Your task to perform on an android device: Go to notification settings Image 0: 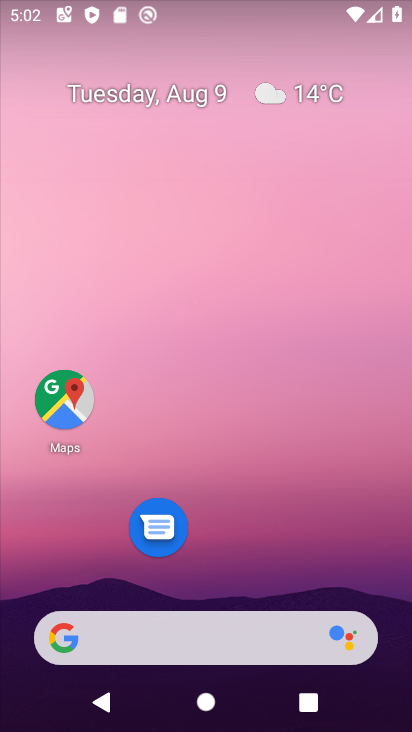
Step 0: drag from (212, 510) to (204, 77)
Your task to perform on an android device: Go to notification settings Image 1: 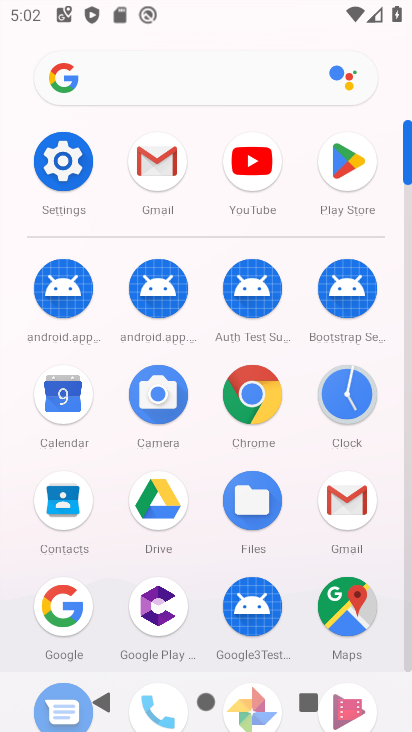
Step 1: click (72, 145)
Your task to perform on an android device: Go to notification settings Image 2: 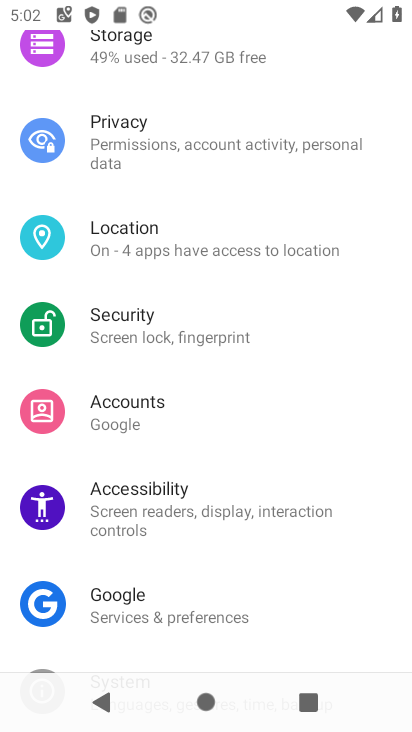
Step 2: drag from (136, 86) to (295, 538)
Your task to perform on an android device: Go to notification settings Image 3: 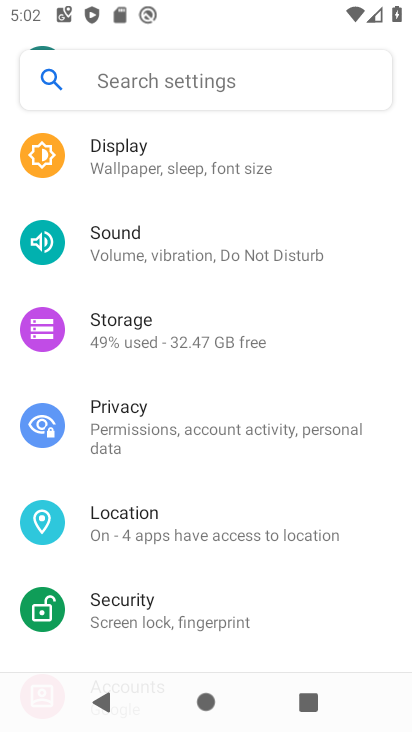
Step 3: drag from (295, 140) to (411, 565)
Your task to perform on an android device: Go to notification settings Image 4: 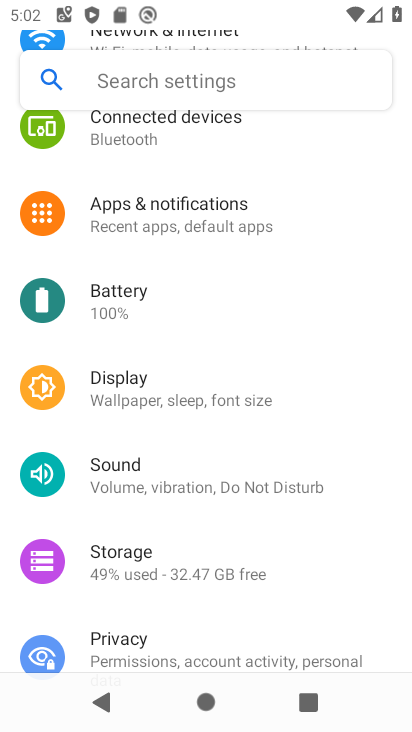
Step 4: click (245, 230)
Your task to perform on an android device: Go to notification settings Image 5: 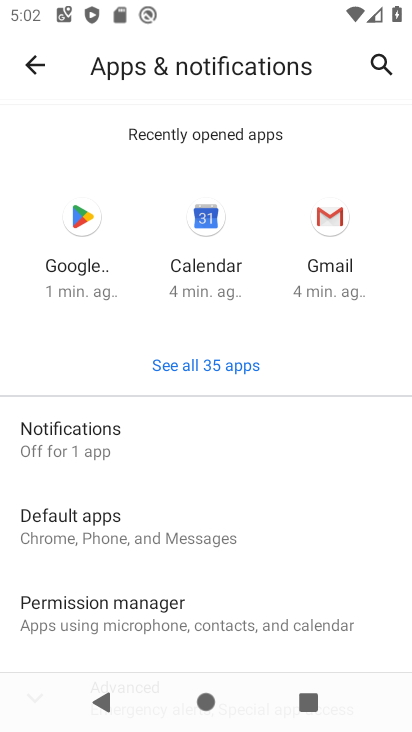
Step 5: task complete